Your task to perform on an android device: toggle priority inbox in the gmail app Image 0: 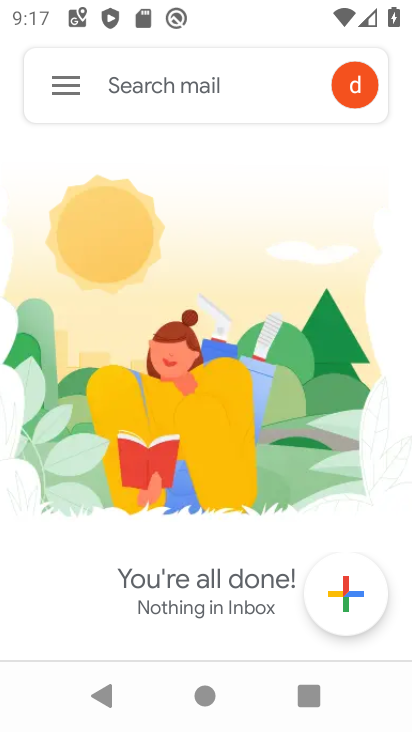
Step 0: click (52, 92)
Your task to perform on an android device: toggle priority inbox in the gmail app Image 1: 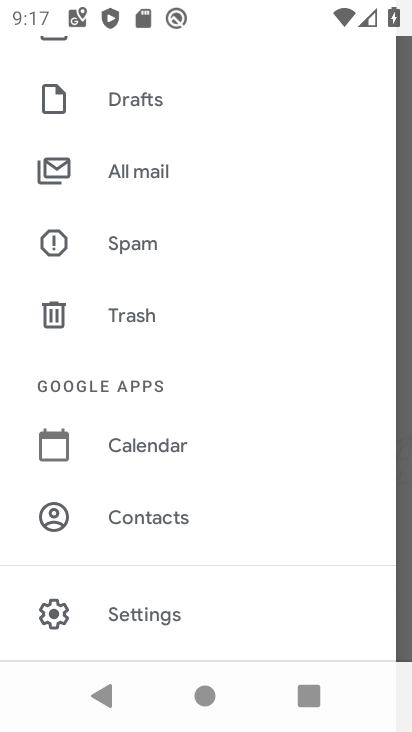
Step 1: click (132, 613)
Your task to perform on an android device: toggle priority inbox in the gmail app Image 2: 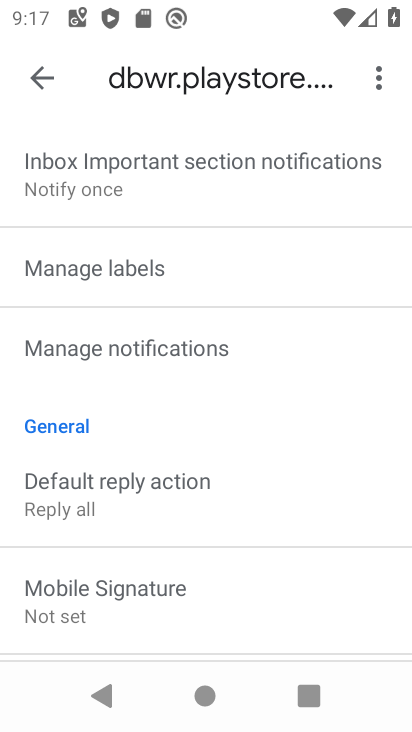
Step 2: drag from (206, 223) to (164, 522)
Your task to perform on an android device: toggle priority inbox in the gmail app Image 3: 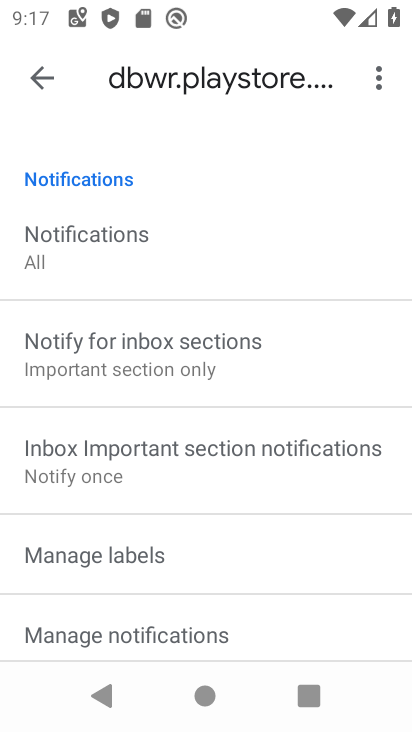
Step 3: drag from (242, 185) to (190, 479)
Your task to perform on an android device: toggle priority inbox in the gmail app Image 4: 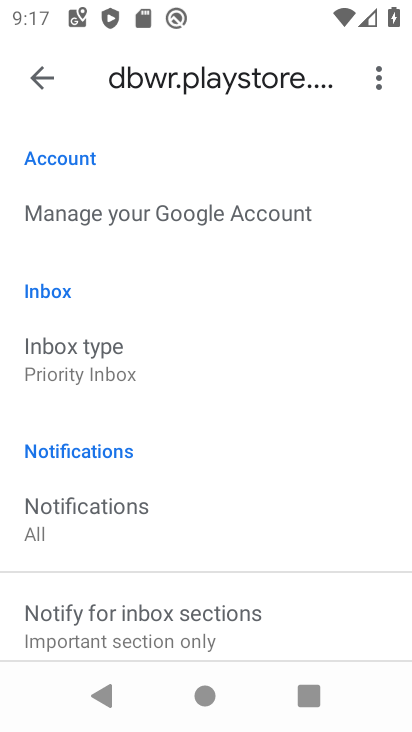
Step 4: click (116, 360)
Your task to perform on an android device: toggle priority inbox in the gmail app Image 5: 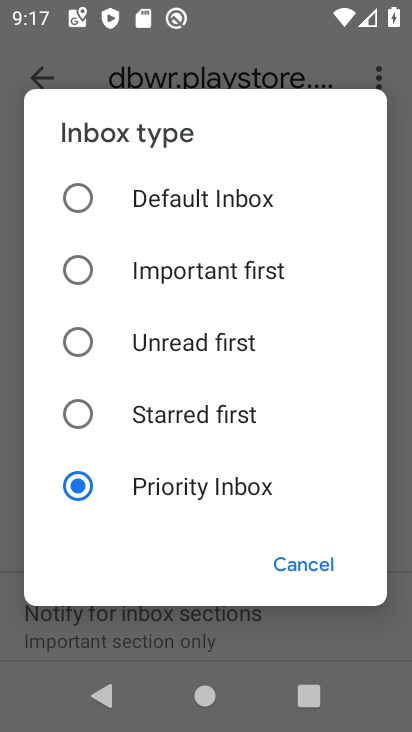
Step 5: task complete